Your task to perform on an android device: Is it going to rain this weekend? Image 0: 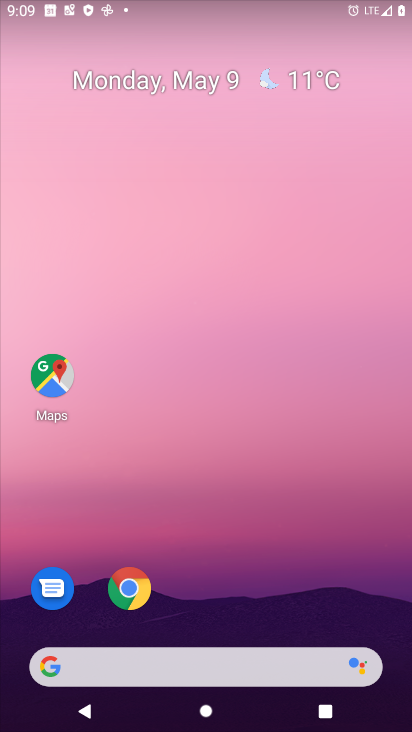
Step 0: drag from (357, 627) to (215, 142)
Your task to perform on an android device: Is it going to rain this weekend? Image 1: 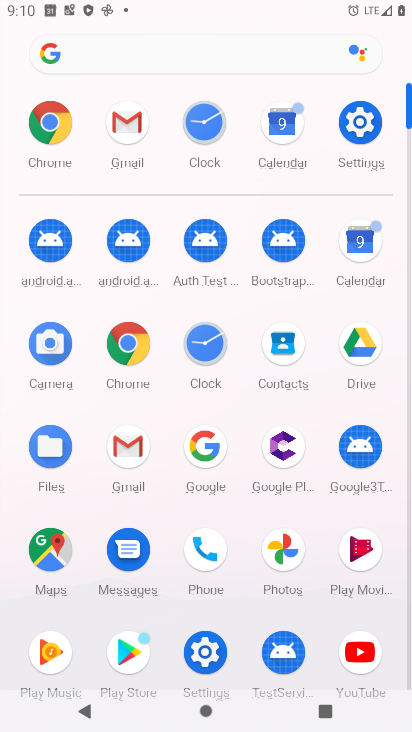
Step 1: press home button
Your task to perform on an android device: Is it going to rain this weekend? Image 2: 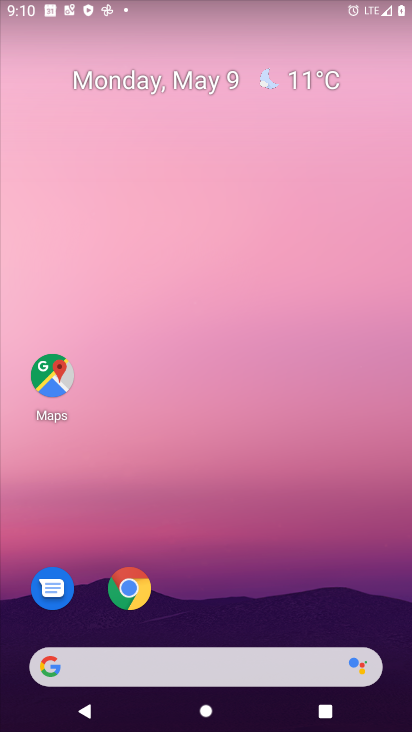
Step 2: click (131, 670)
Your task to perform on an android device: Is it going to rain this weekend? Image 3: 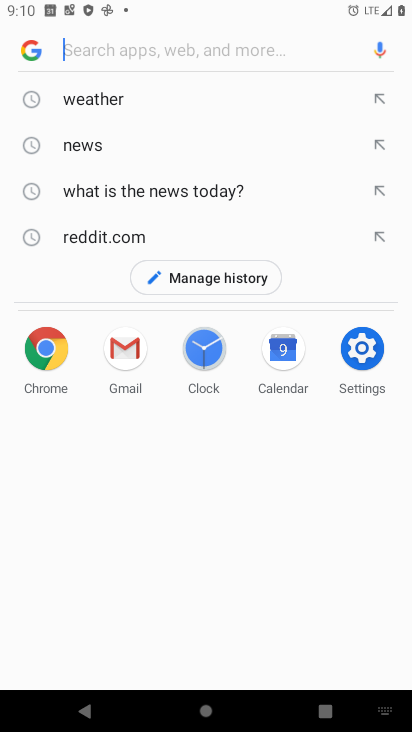
Step 3: click (372, 188)
Your task to perform on an android device: Is it going to rain this weekend? Image 4: 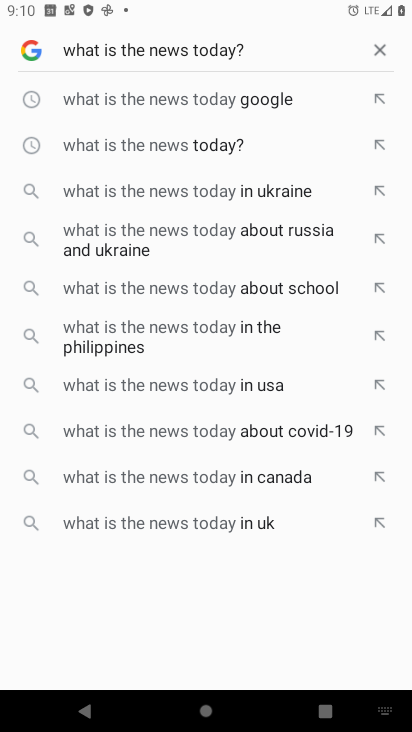
Step 4: click (382, 50)
Your task to perform on an android device: Is it going to rain this weekend? Image 5: 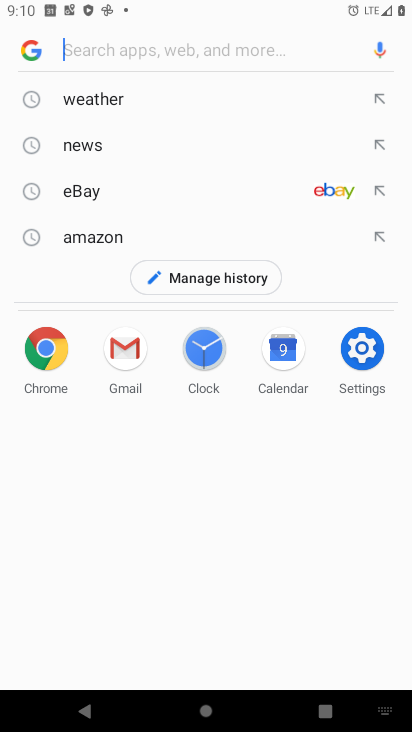
Step 5: type "Is it going to rain this weekend"
Your task to perform on an android device: Is it going to rain this weekend? Image 6: 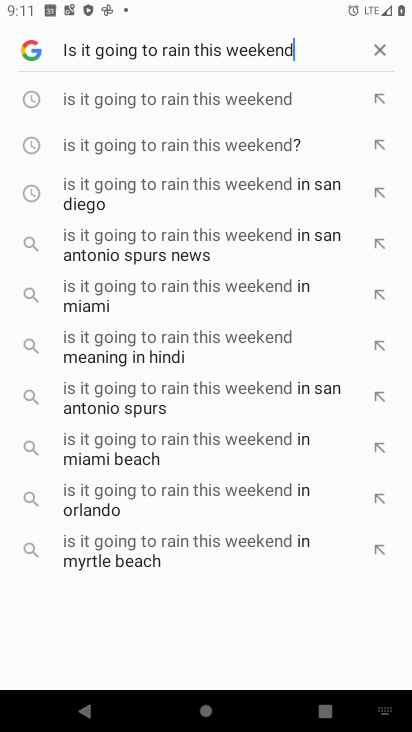
Step 6: click (235, 143)
Your task to perform on an android device: Is it going to rain this weekend? Image 7: 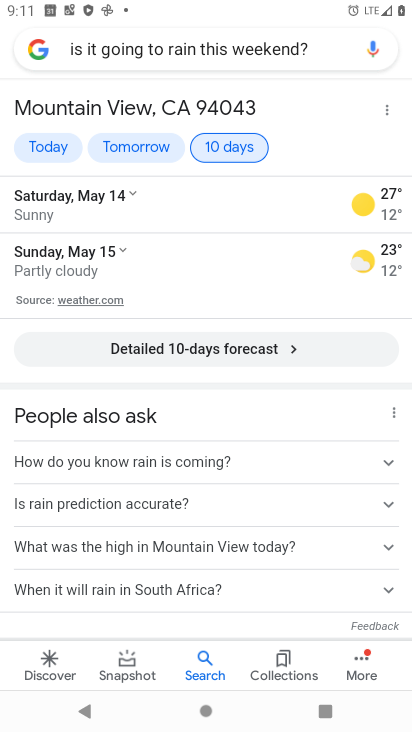
Step 7: task complete